Your task to perform on an android device: turn on bluetooth scan Image 0: 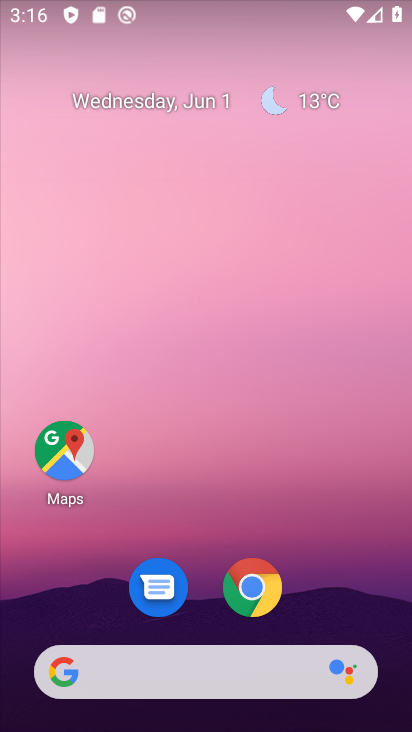
Step 0: drag from (325, 551) to (211, 18)
Your task to perform on an android device: turn on bluetooth scan Image 1: 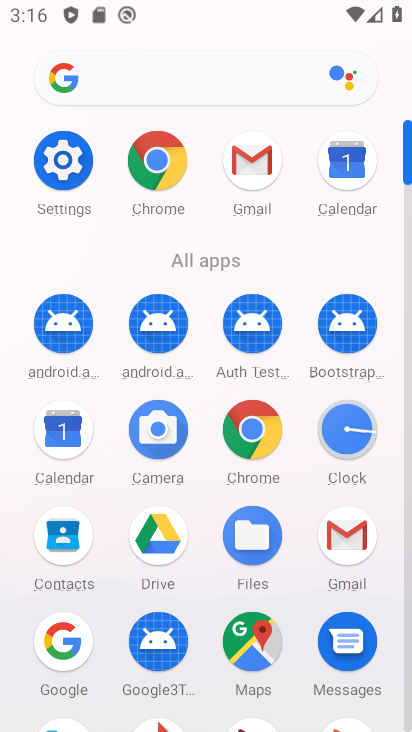
Step 1: drag from (7, 594) to (5, 254)
Your task to perform on an android device: turn on bluetooth scan Image 2: 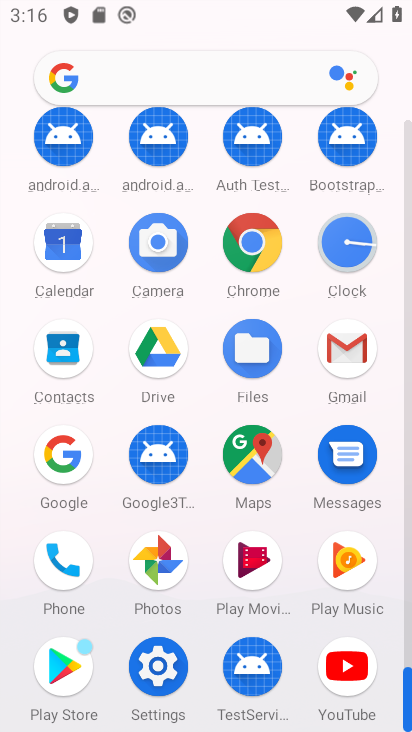
Step 2: drag from (11, 452) to (37, 227)
Your task to perform on an android device: turn on bluetooth scan Image 3: 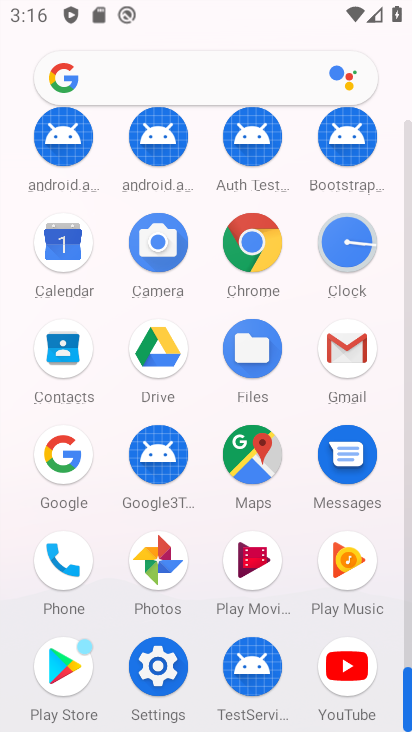
Step 3: click (151, 661)
Your task to perform on an android device: turn on bluetooth scan Image 4: 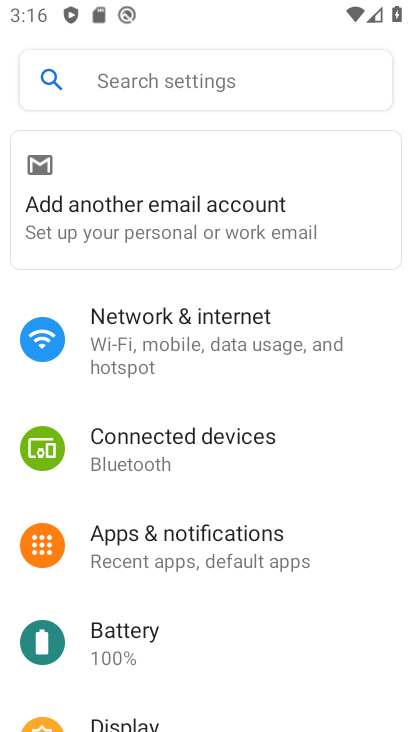
Step 4: drag from (250, 632) to (252, 288)
Your task to perform on an android device: turn on bluetooth scan Image 5: 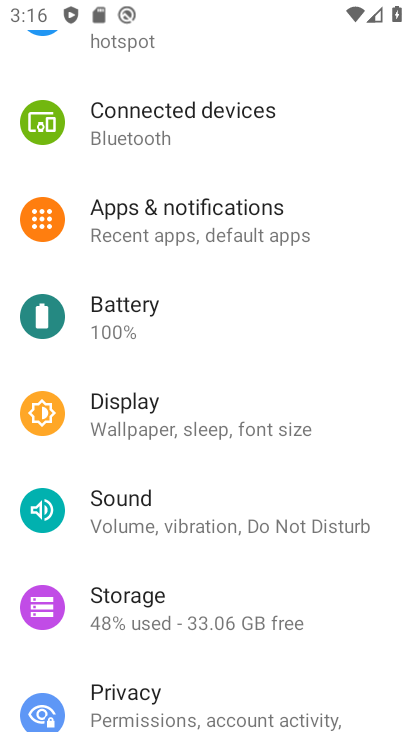
Step 5: drag from (185, 642) to (202, 184)
Your task to perform on an android device: turn on bluetooth scan Image 6: 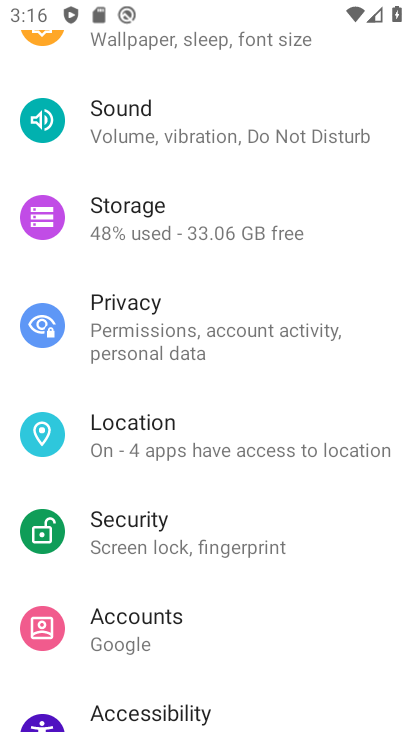
Step 6: click (180, 419)
Your task to perform on an android device: turn on bluetooth scan Image 7: 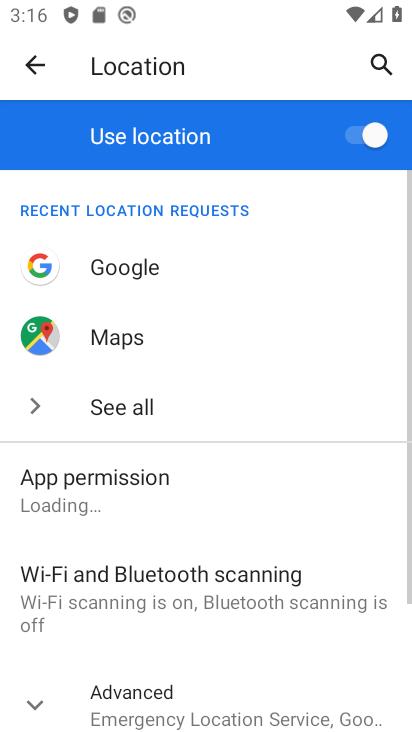
Step 7: click (239, 574)
Your task to perform on an android device: turn on bluetooth scan Image 8: 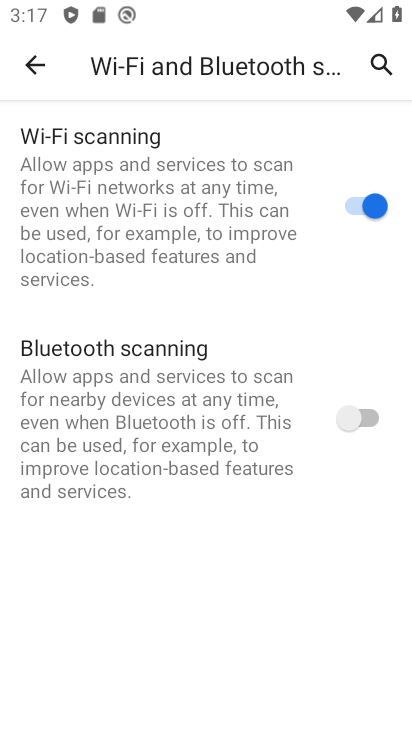
Step 8: click (363, 405)
Your task to perform on an android device: turn on bluetooth scan Image 9: 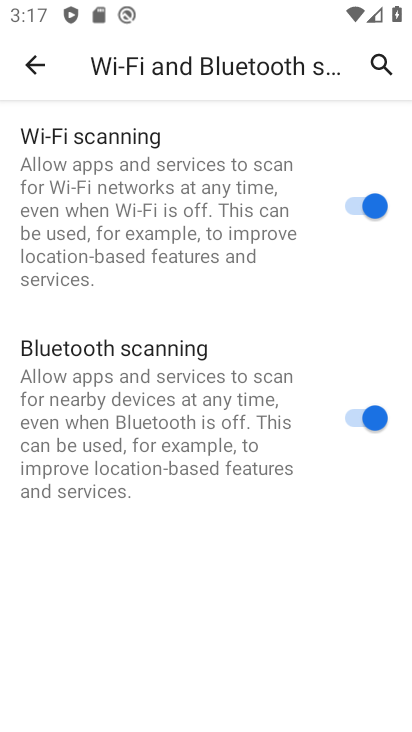
Step 9: task complete